Your task to perform on an android device: Open Maps and search for coffee Image 0: 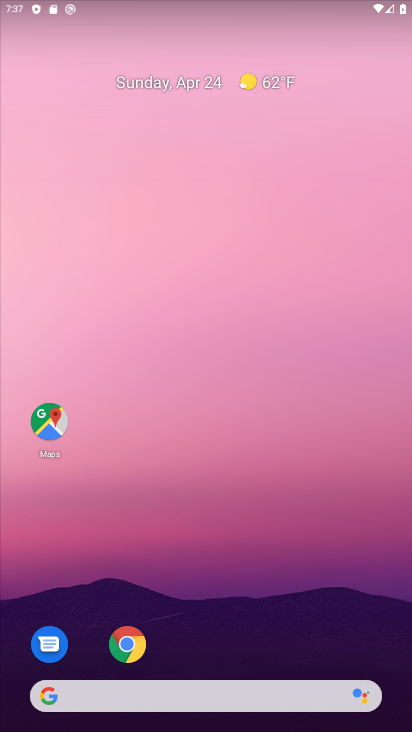
Step 0: click (193, 3)
Your task to perform on an android device: Open Maps and search for coffee Image 1: 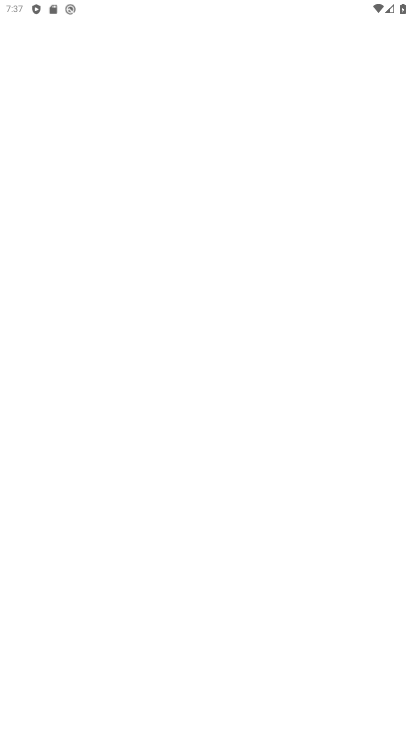
Step 1: press home button
Your task to perform on an android device: Open Maps and search for coffee Image 2: 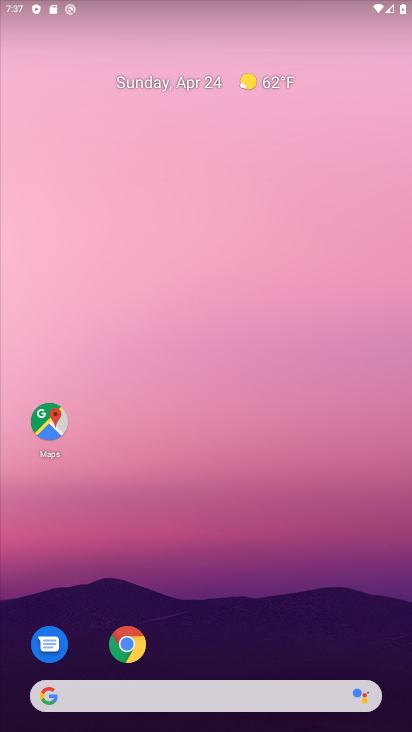
Step 2: drag from (229, 470) to (201, 81)
Your task to perform on an android device: Open Maps and search for coffee Image 3: 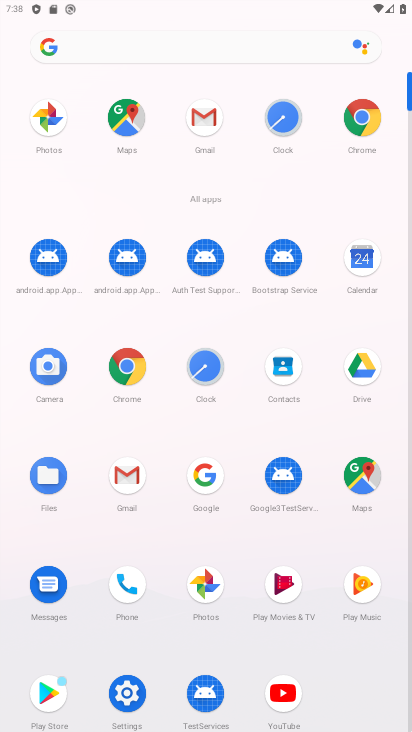
Step 3: click (354, 476)
Your task to perform on an android device: Open Maps and search for coffee Image 4: 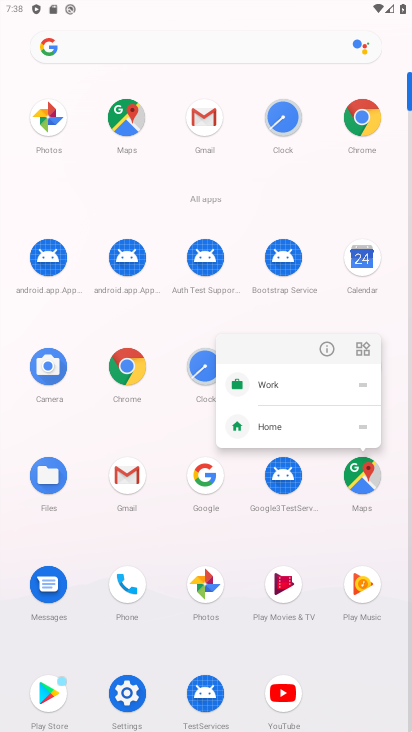
Step 4: click (257, 427)
Your task to perform on an android device: Open Maps and search for coffee Image 5: 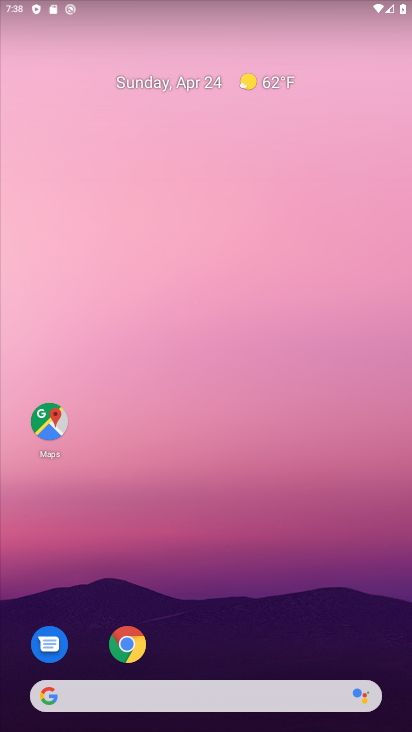
Step 5: click (56, 424)
Your task to perform on an android device: Open Maps and search for coffee Image 6: 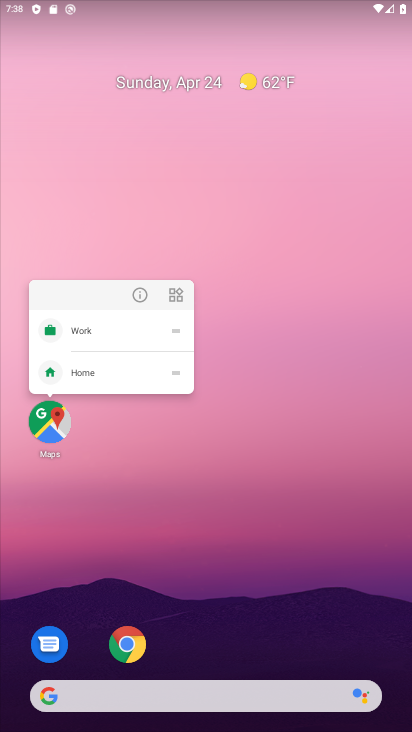
Step 6: click (49, 420)
Your task to perform on an android device: Open Maps and search for coffee Image 7: 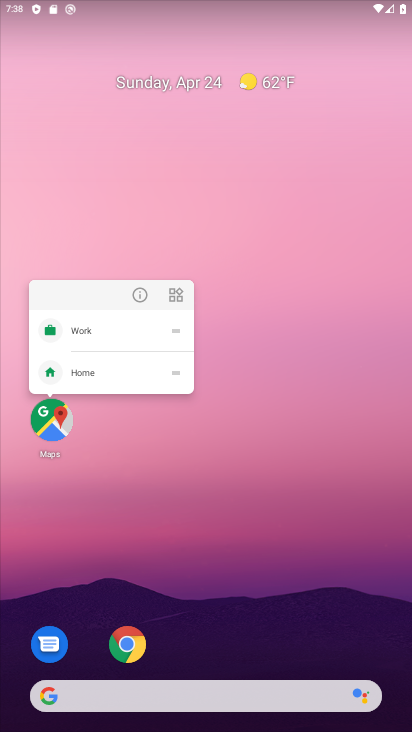
Step 7: drag from (51, 419) to (44, 457)
Your task to perform on an android device: Open Maps and search for coffee Image 8: 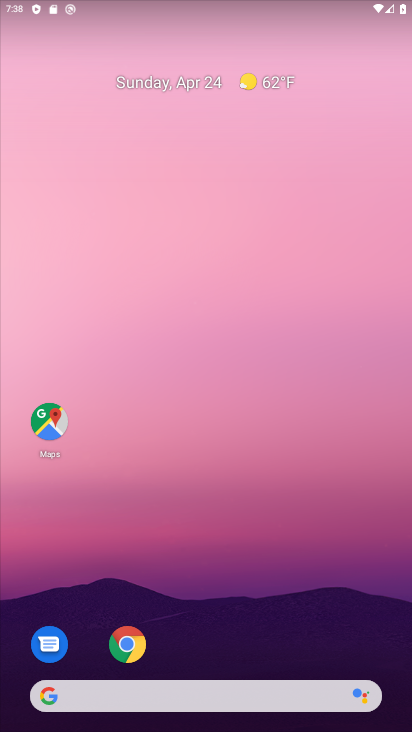
Step 8: click (53, 427)
Your task to perform on an android device: Open Maps and search for coffee Image 9: 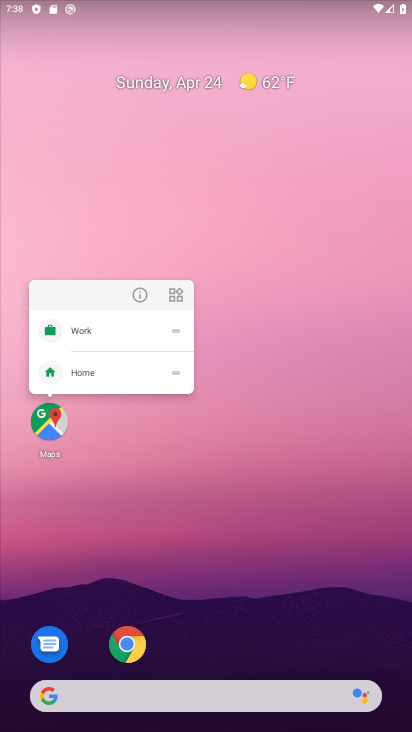
Step 9: click (73, 327)
Your task to perform on an android device: Open Maps and search for coffee Image 10: 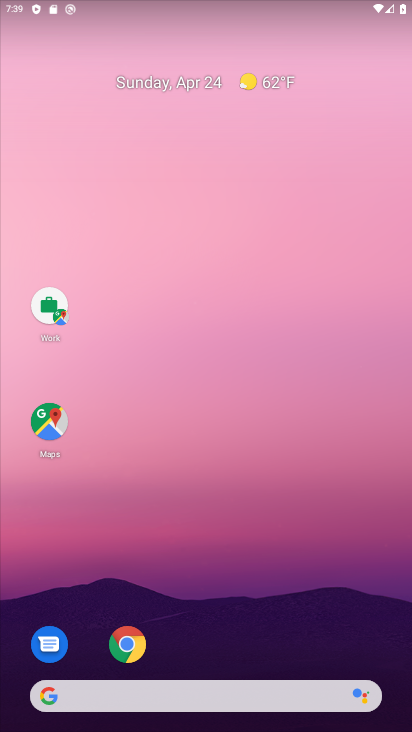
Step 10: click (58, 422)
Your task to perform on an android device: Open Maps and search for coffee Image 11: 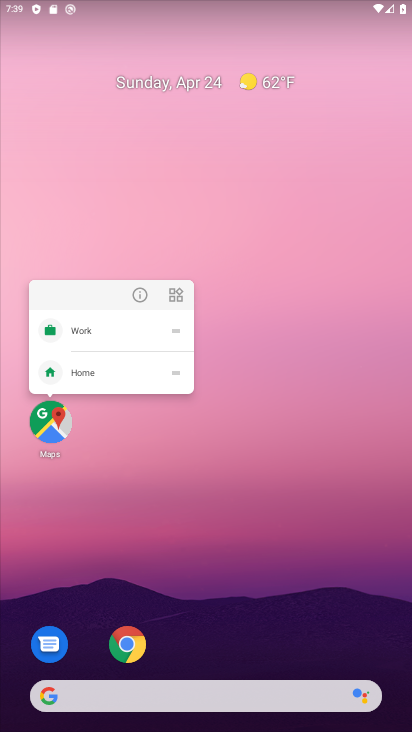
Step 11: click (59, 423)
Your task to perform on an android device: Open Maps and search for coffee Image 12: 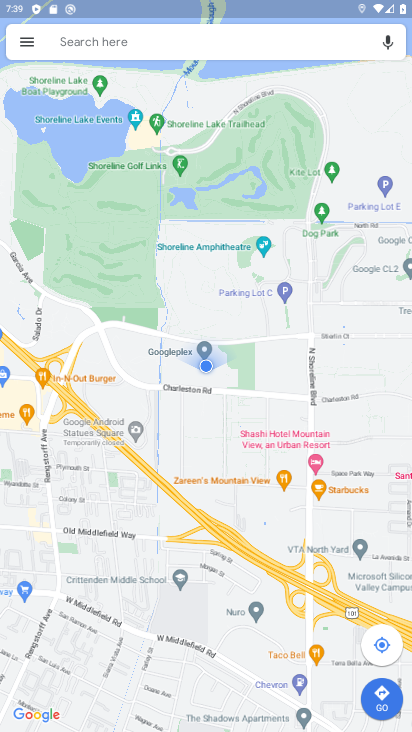
Step 12: drag from (68, 39) to (55, 77)
Your task to perform on an android device: Open Maps and search for coffee Image 13: 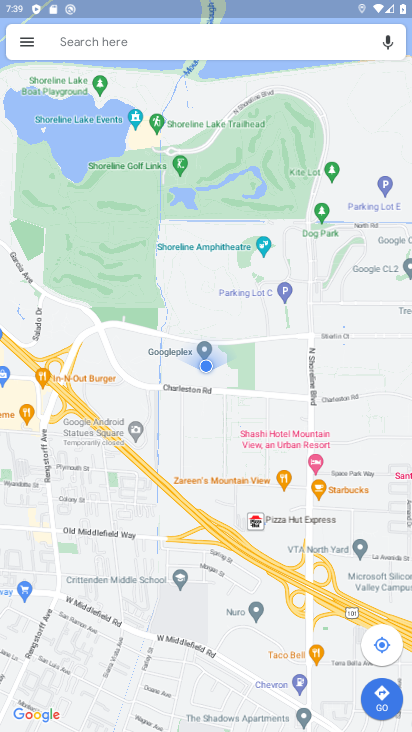
Step 13: click (88, 33)
Your task to perform on an android device: Open Maps and search for coffee Image 14: 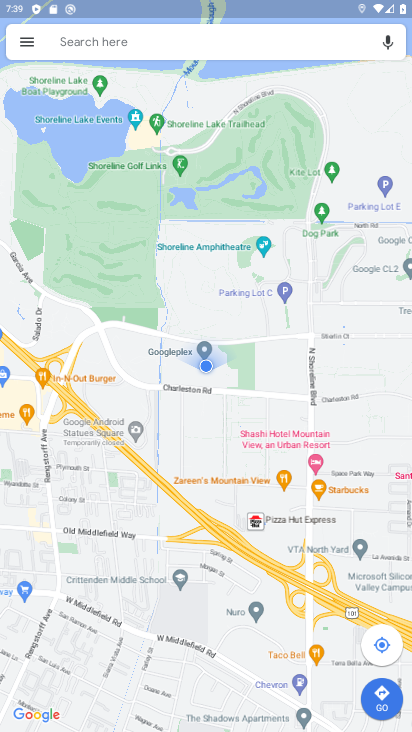
Step 14: click (90, 35)
Your task to perform on an android device: Open Maps and search for coffee Image 15: 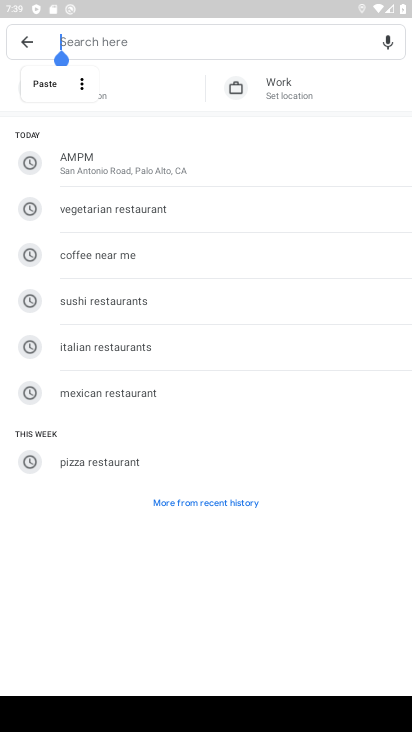
Step 15: click (100, 254)
Your task to perform on an android device: Open Maps and search for coffee Image 16: 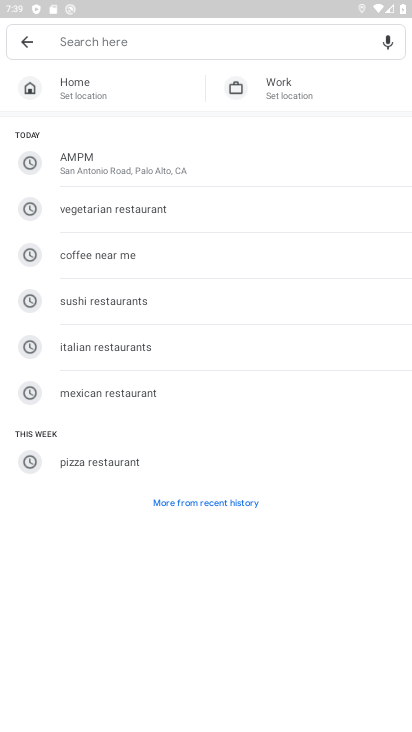
Step 16: task complete